Your task to perform on an android device: stop showing notifications on the lock screen Image 0: 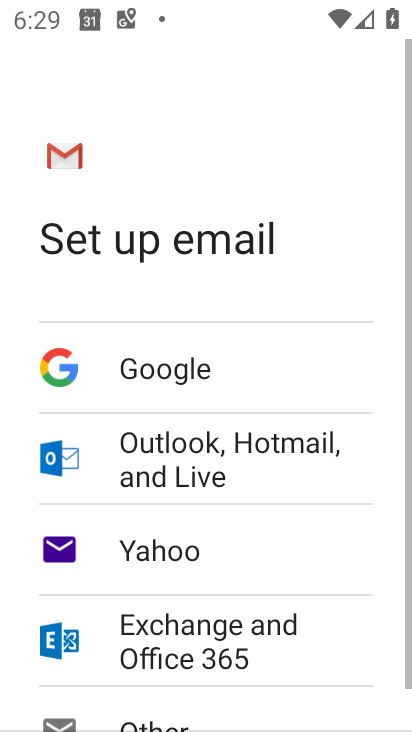
Step 0: press home button
Your task to perform on an android device: stop showing notifications on the lock screen Image 1: 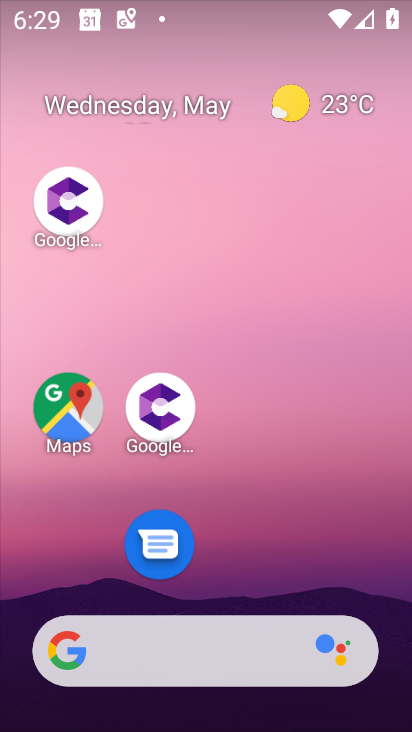
Step 1: drag from (303, 538) to (287, 123)
Your task to perform on an android device: stop showing notifications on the lock screen Image 2: 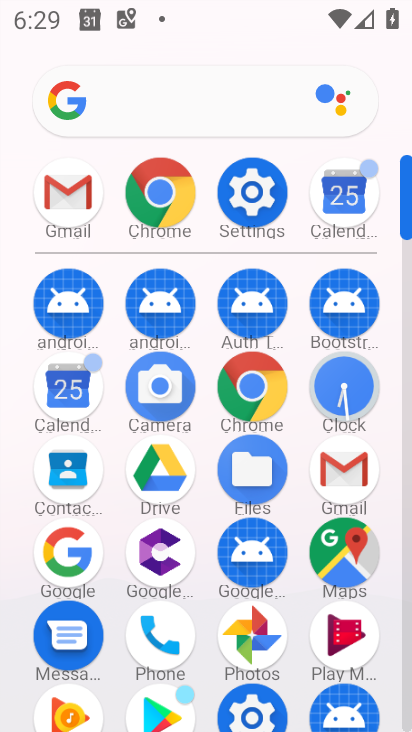
Step 2: click (251, 189)
Your task to perform on an android device: stop showing notifications on the lock screen Image 3: 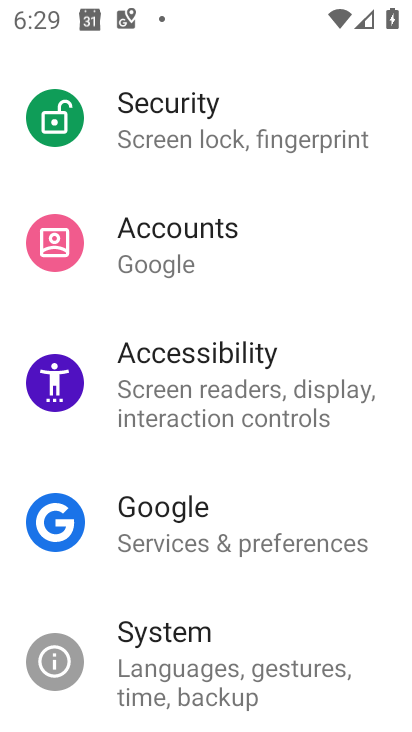
Step 3: drag from (247, 264) to (216, 626)
Your task to perform on an android device: stop showing notifications on the lock screen Image 4: 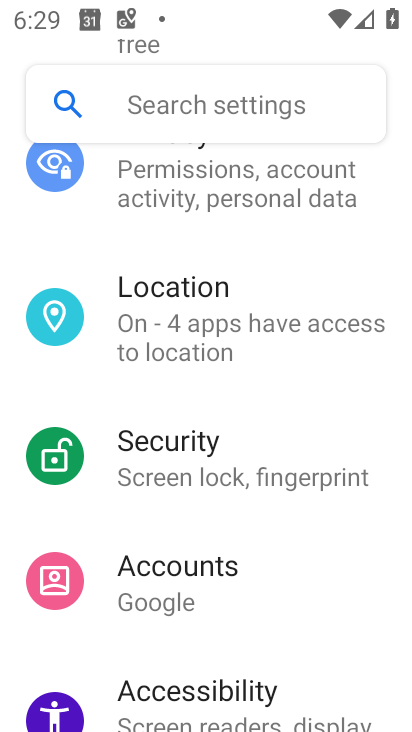
Step 4: drag from (257, 233) to (211, 711)
Your task to perform on an android device: stop showing notifications on the lock screen Image 5: 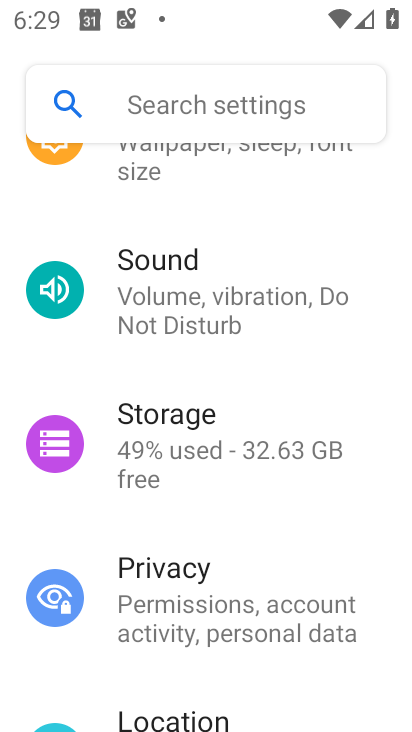
Step 5: drag from (235, 229) to (278, 680)
Your task to perform on an android device: stop showing notifications on the lock screen Image 6: 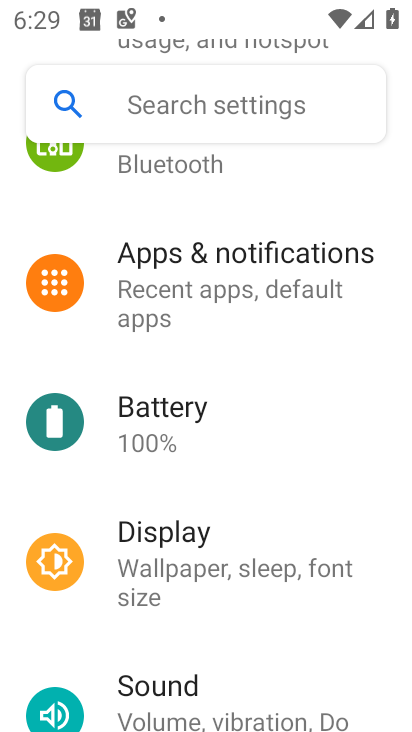
Step 6: click (230, 258)
Your task to perform on an android device: stop showing notifications on the lock screen Image 7: 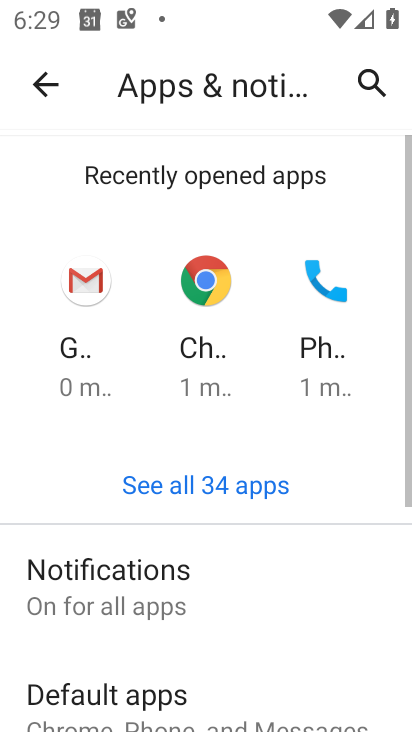
Step 7: click (121, 564)
Your task to perform on an android device: stop showing notifications on the lock screen Image 8: 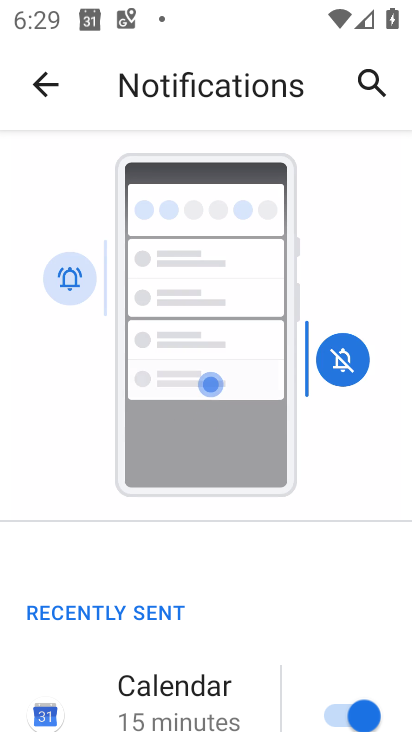
Step 8: drag from (251, 571) to (233, 18)
Your task to perform on an android device: stop showing notifications on the lock screen Image 9: 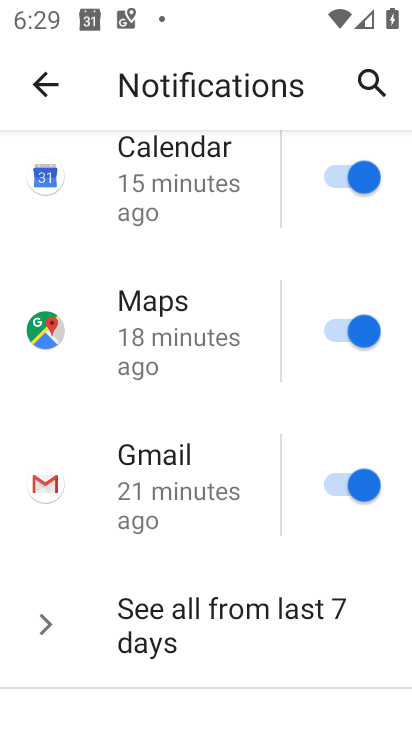
Step 9: drag from (316, 515) to (277, 195)
Your task to perform on an android device: stop showing notifications on the lock screen Image 10: 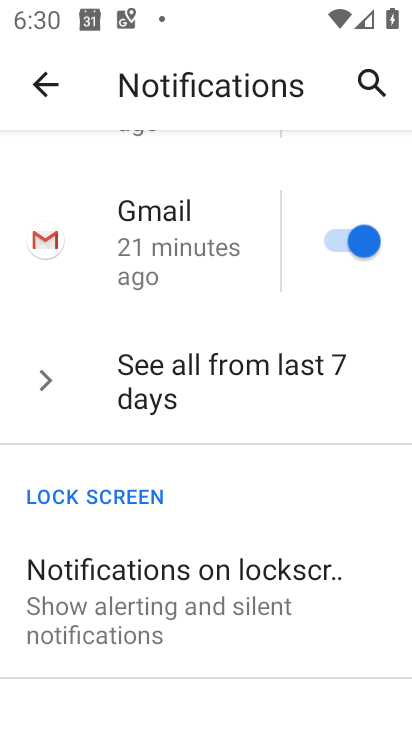
Step 10: click (178, 564)
Your task to perform on an android device: stop showing notifications on the lock screen Image 11: 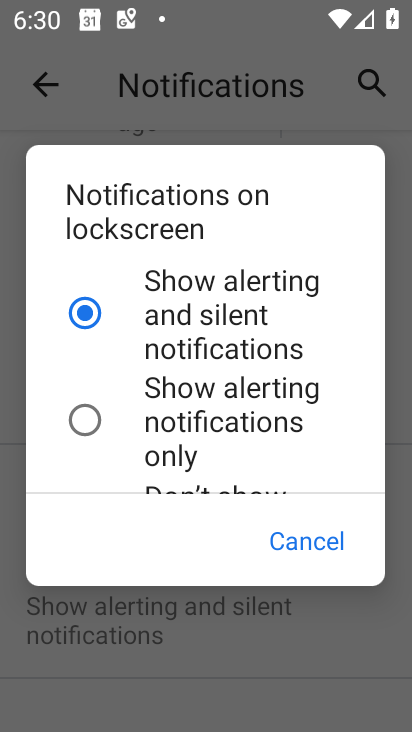
Step 11: drag from (314, 450) to (293, 164)
Your task to perform on an android device: stop showing notifications on the lock screen Image 12: 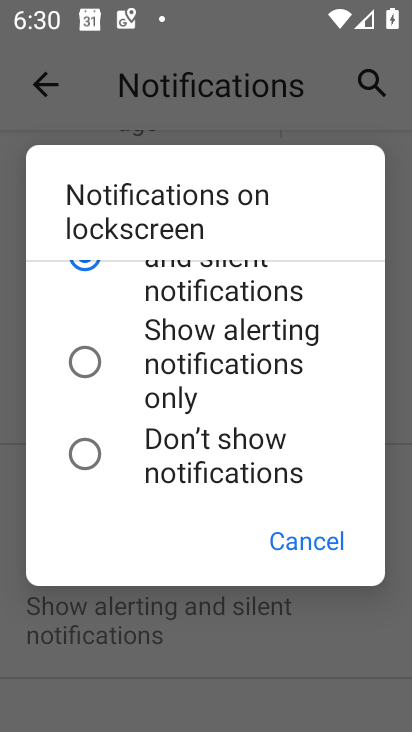
Step 12: click (82, 458)
Your task to perform on an android device: stop showing notifications on the lock screen Image 13: 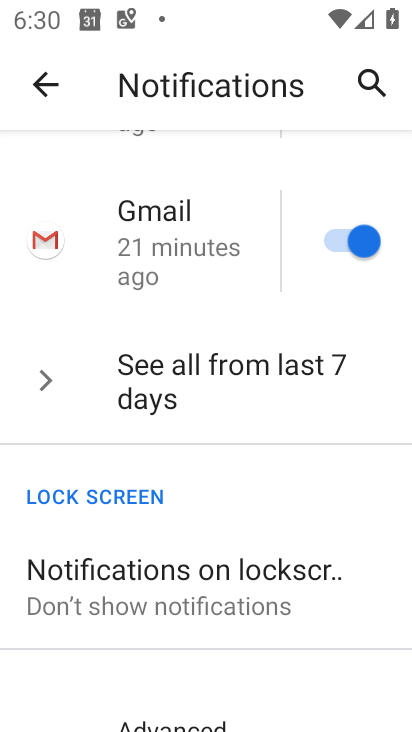
Step 13: task complete